Your task to perform on an android device: When is my next appointment? Image 0: 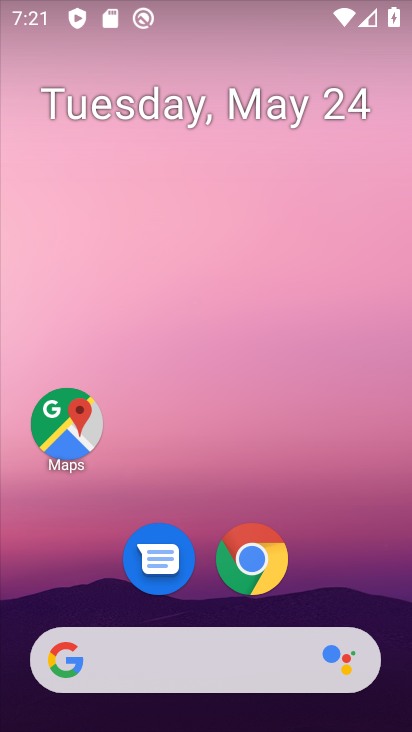
Step 0: press home button
Your task to perform on an android device: When is my next appointment? Image 1: 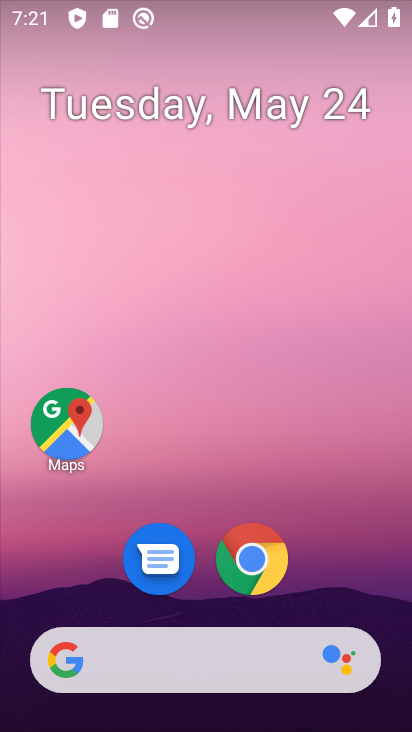
Step 1: drag from (201, 678) to (302, 132)
Your task to perform on an android device: When is my next appointment? Image 2: 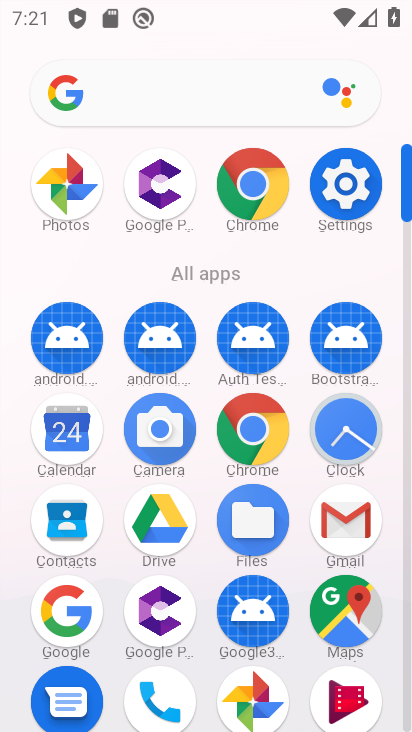
Step 2: click (61, 433)
Your task to perform on an android device: When is my next appointment? Image 3: 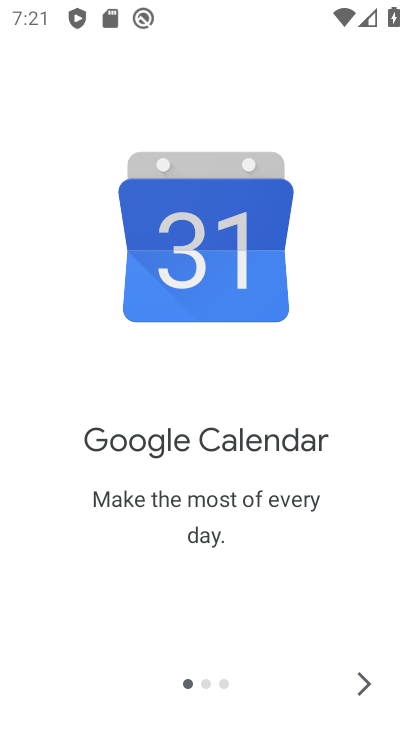
Step 3: click (365, 677)
Your task to perform on an android device: When is my next appointment? Image 4: 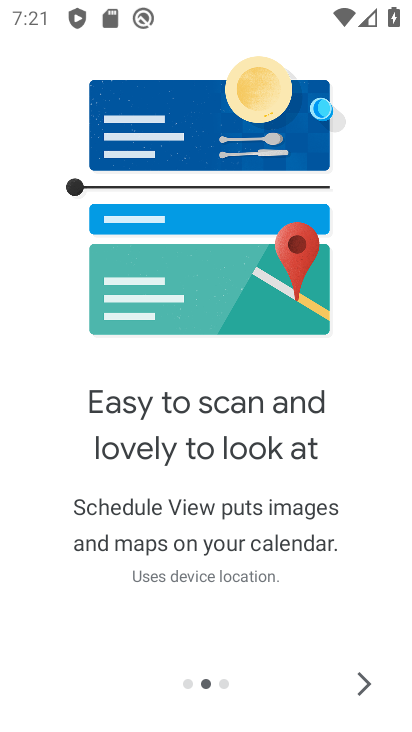
Step 4: click (365, 677)
Your task to perform on an android device: When is my next appointment? Image 5: 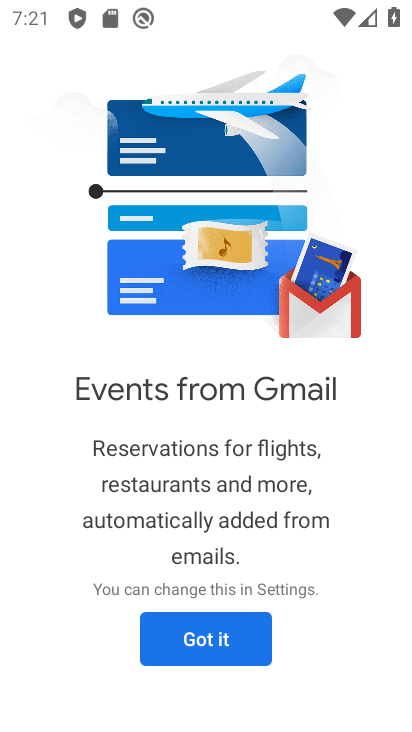
Step 5: click (198, 640)
Your task to perform on an android device: When is my next appointment? Image 6: 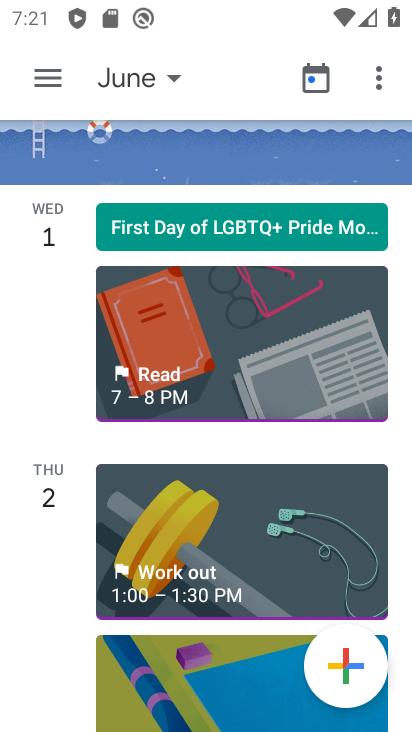
Step 6: click (130, 81)
Your task to perform on an android device: When is my next appointment? Image 7: 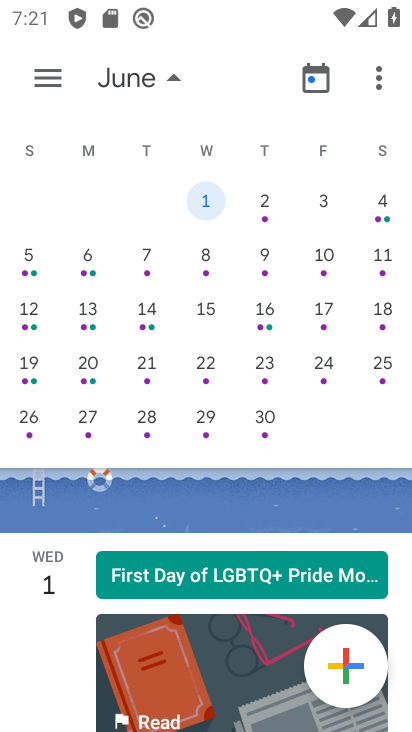
Step 7: drag from (70, 225) to (345, 296)
Your task to perform on an android device: When is my next appointment? Image 8: 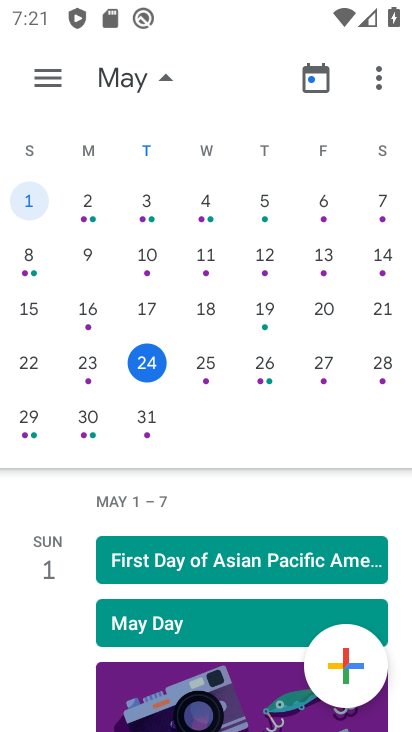
Step 8: click (154, 363)
Your task to perform on an android device: When is my next appointment? Image 9: 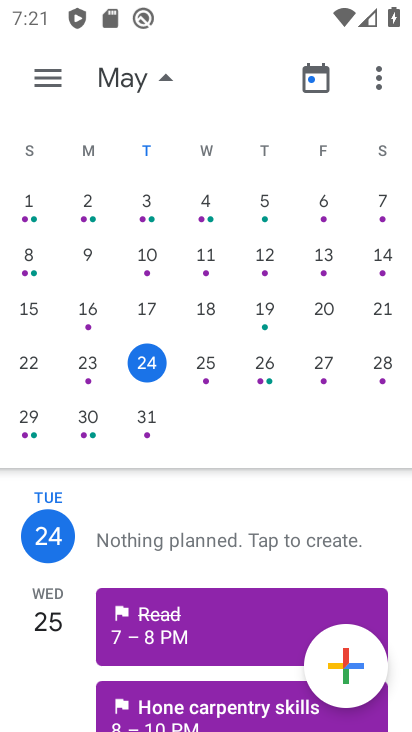
Step 9: click (59, 78)
Your task to perform on an android device: When is my next appointment? Image 10: 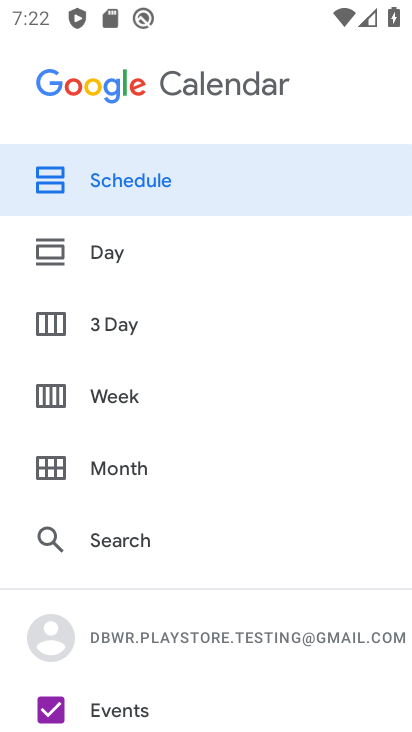
Step 10: click (115, 400)
Your task to perform on an android device: When is my next appointment? Image 11: 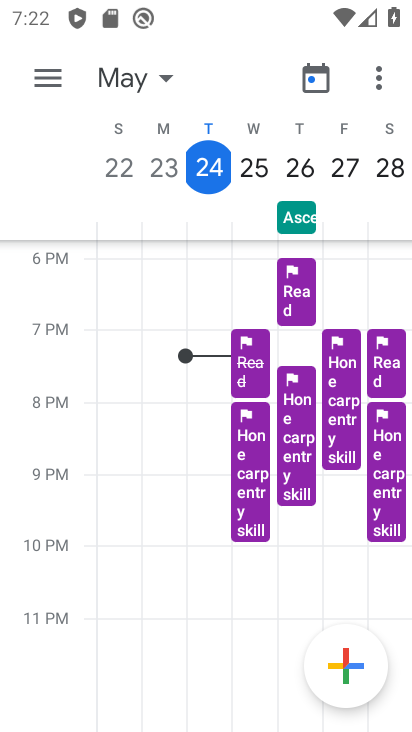
Step 11: click (40, 76)
Your task to perform on an android device: When is my next appointment? Image 12: 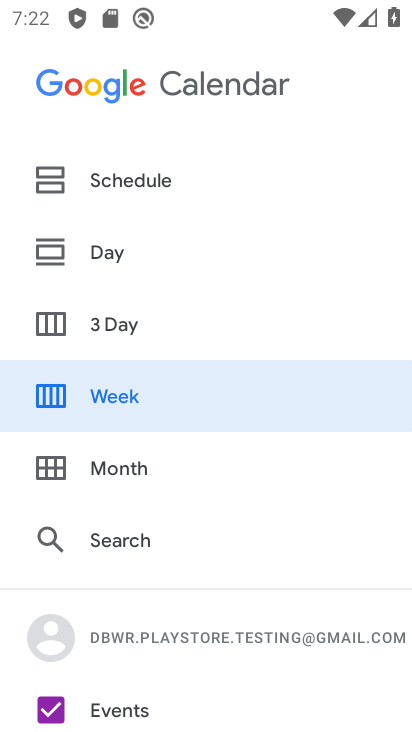
Step 12: click (117, 186)
Your task to perform on an android device: When is my next appointment? Image 13: 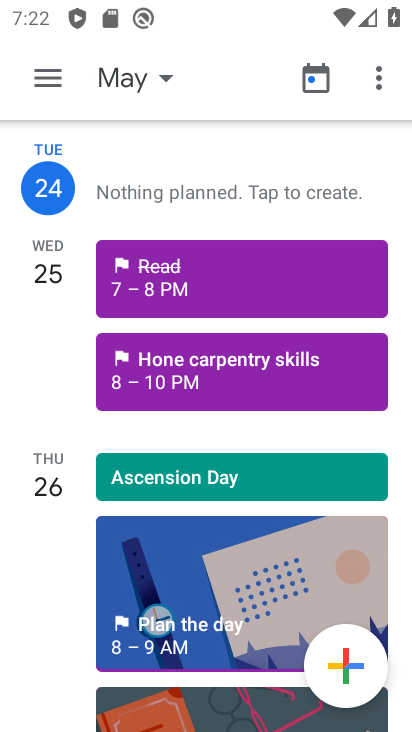
Step 13: click (227, 375)
Your task to perform on an android device: When is my next appointment? Image 14: 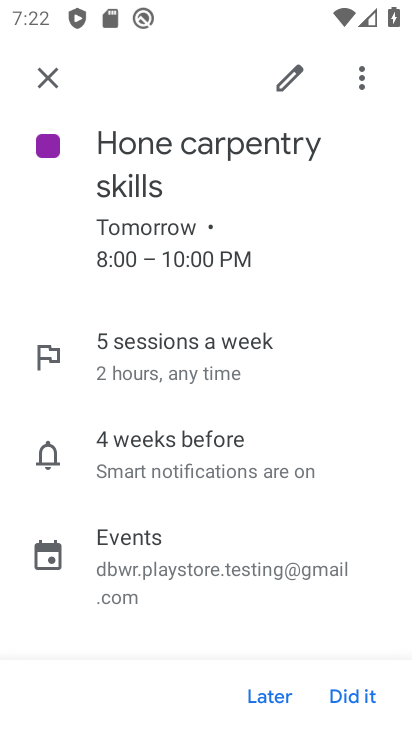
Step 14: task complete